Your task to perform on an android device: Open Google Image 0: 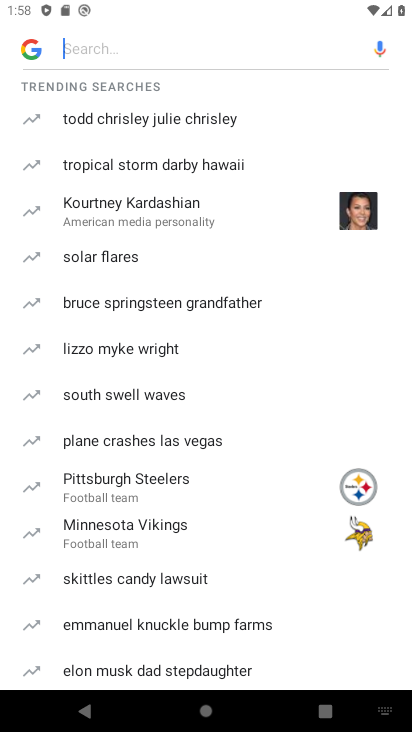
Step 0: press home button
Your task to perform on an android device: Open Google Image 1: 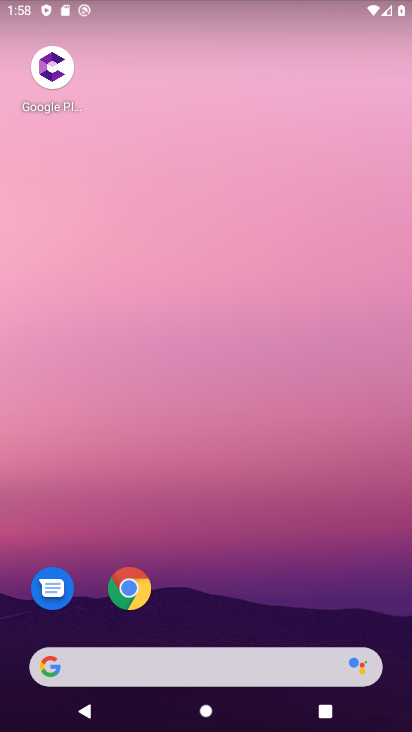
Step 1: drag from (296, 616) to (267, 180)
Your task to perform on an android device: Open Google Image 2: 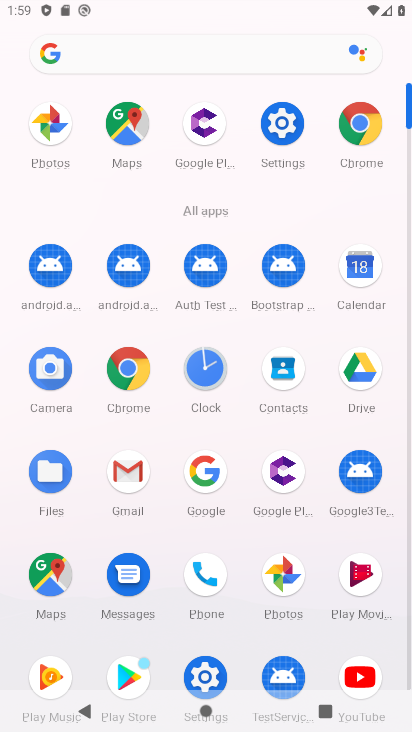
Step 2: click (195, 502)
Your task to perform on an android device: Open Google Image 3: 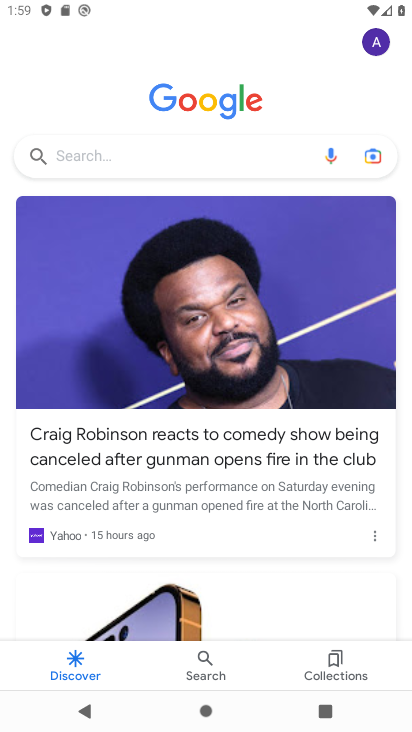
Step 3: task complete